Your task to perform on an android device: change notification settings in the gmail app Image 0: 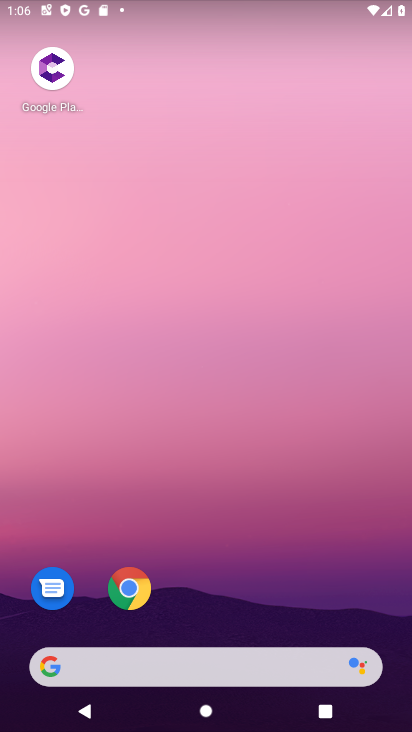
Step 0: drag from (286, 597) to (232, 147)
Your task to perform on an android device: change notification settings in the gmail app Image 1: 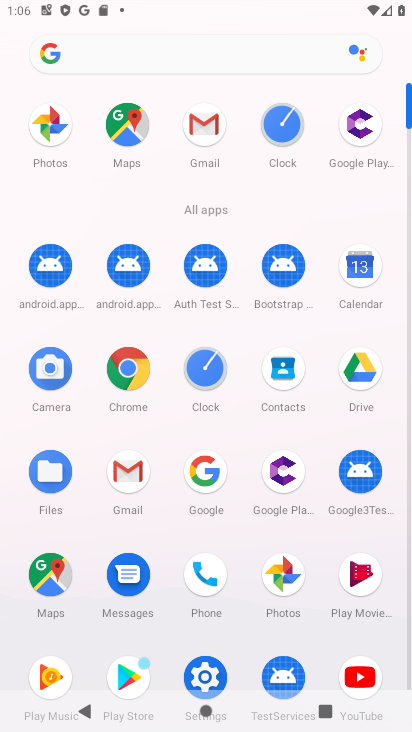
Step 1: click (130, 476)
Your task to perform on an android device: change notification settings in the gmail app Image 2: 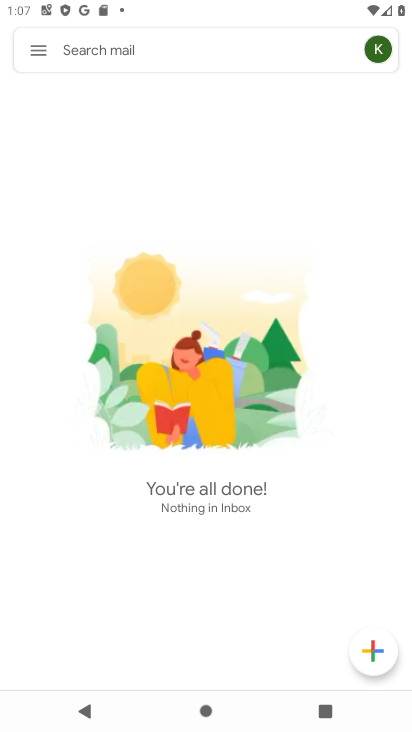
Step 2: click (35, 56)
Your task to perform on an android device: change notification settings in the gmail app Image 3: 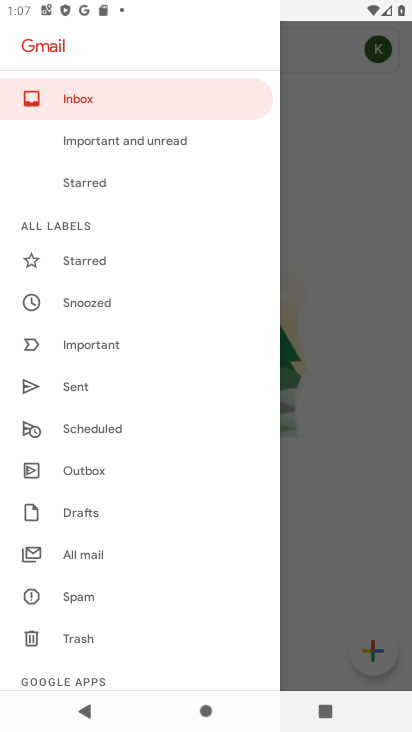
Step 3: drag from (203, 593) to (137, 52)
Your task to perform on an android device: change notification settings in the gmail app Image 4: 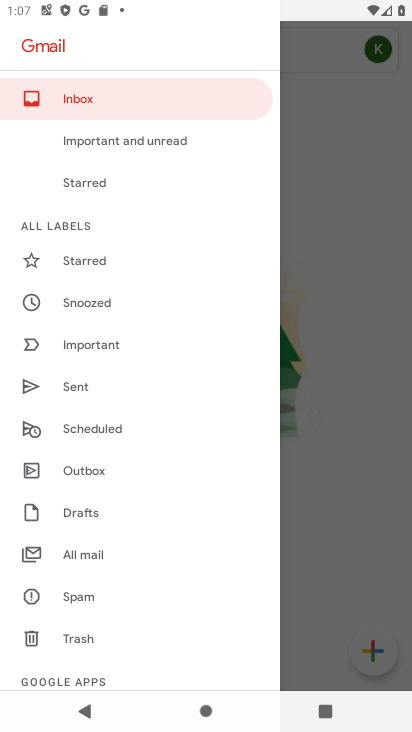
Step 4: drag from (91, 672) to (113, 179)
Your task to perform on an android device: change notification settings in the gmail app Image 5: 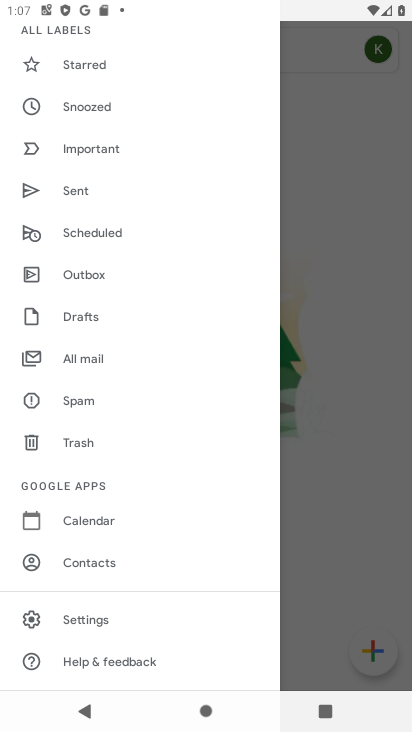
Step 5: click (102, 620)
Your task to perform on an android device: change notification settings in the gmail app Image 6: 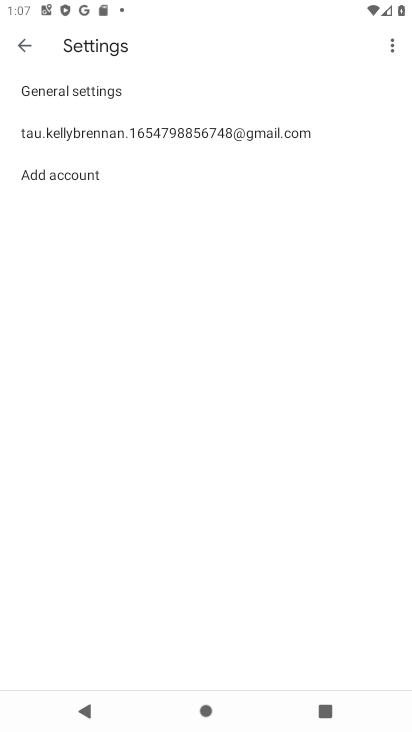
Step 6: click (71, 127)
Your task to perform on an android device: change notification settings in the gmail app Image 7: 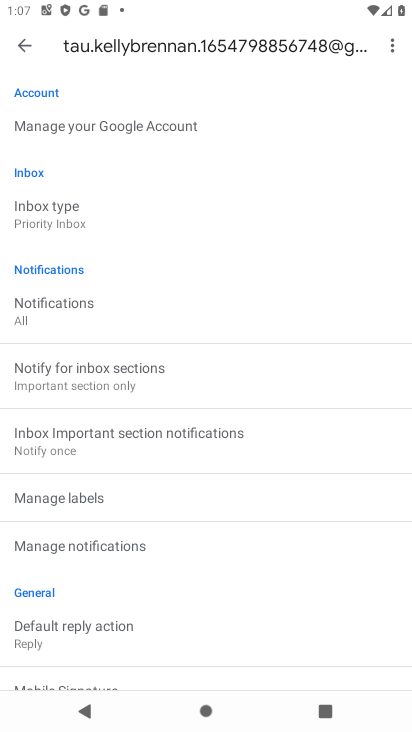
Step 7: click (57, 321)
Your task to perform on an android device: change notification settings in the gmail app Image 8: 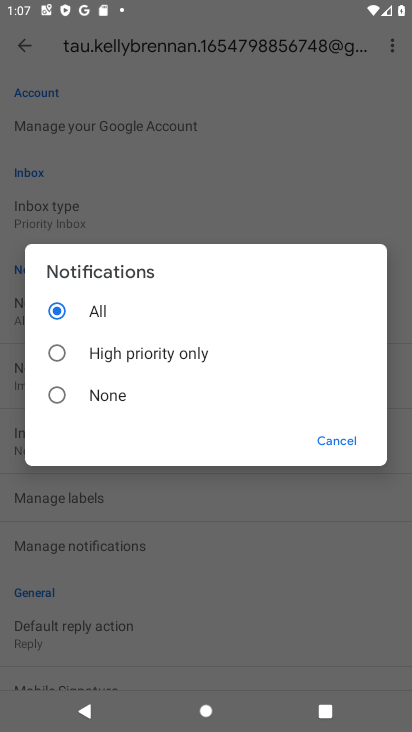
Step 8: click (109, 392)
Your task to perform on an android device: change notification settings in the gmail app Image 9: 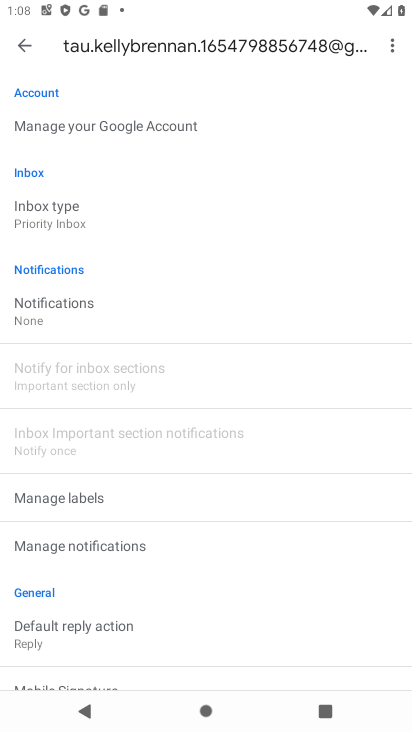
Step 9: click (80, 540)
Your task to perform on an android device: change notification settings in the gmail app Image 10: 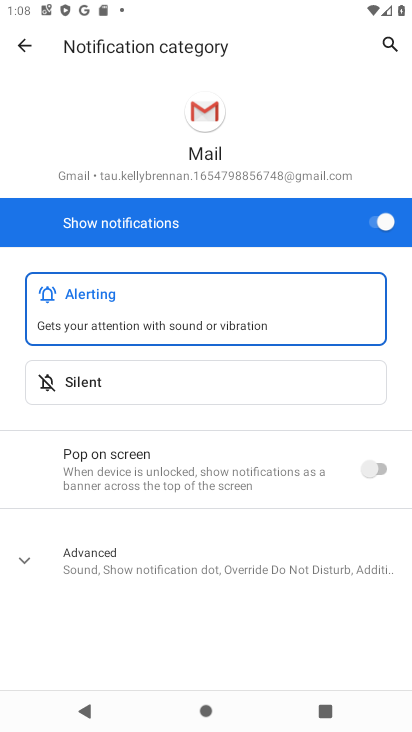
Step 10: click (223, 382)
Your task to perform on an android device: change notification settings in the gmail app Image 11: 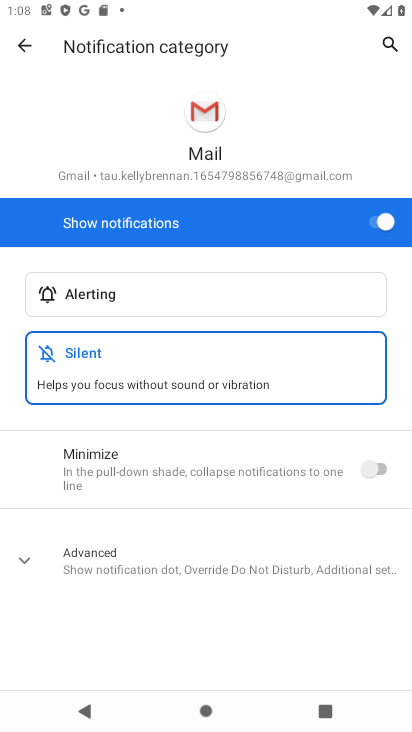
Step 11: task complete